Your task to perform on an android device: Open Amazon Image 0: 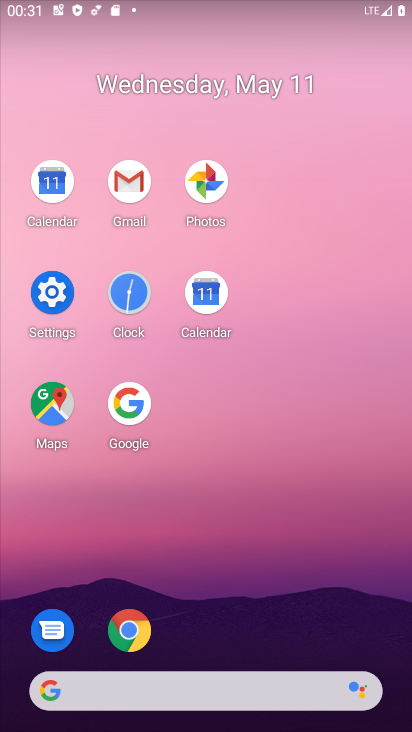
Step 0: click (122, 632)
Your task to perform on an android device: Open Amazon Image 1: 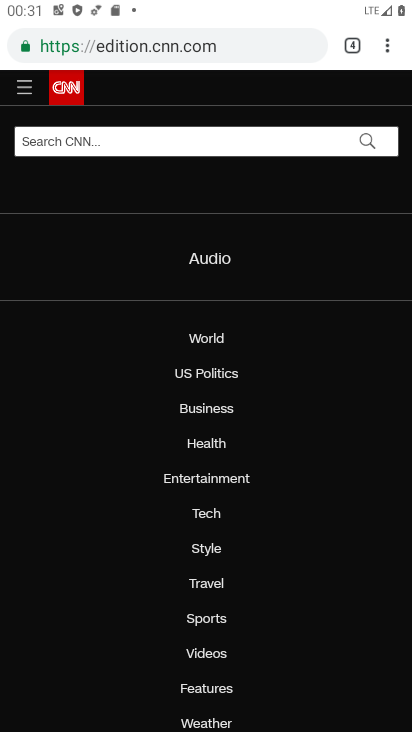
Step 1: click (352, 42)
Your task to perform on an android device: Open Amazon Image 2: 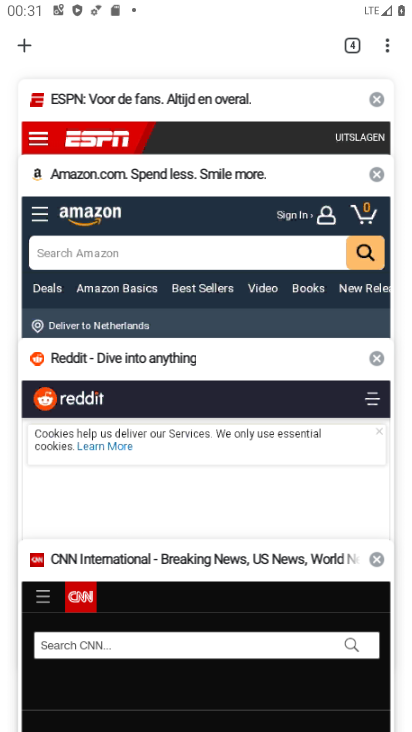
Step 2: click (173, 208)
Your task to perform on an android device: Open Amazon Image 3: 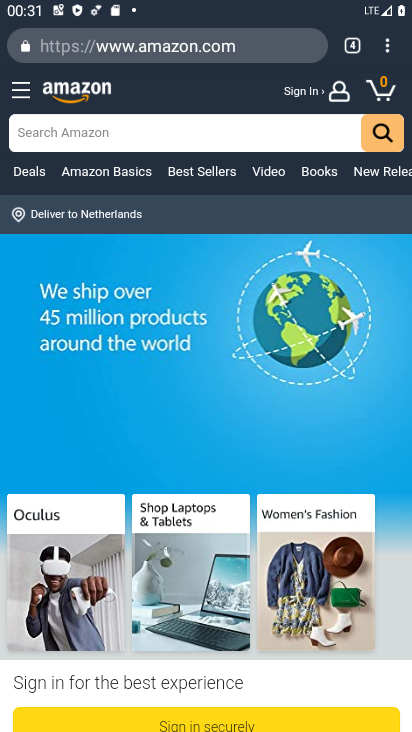
Step 3: task complete